Your task to perform on an android device: make emails show in primary in the gmail app Image 0: 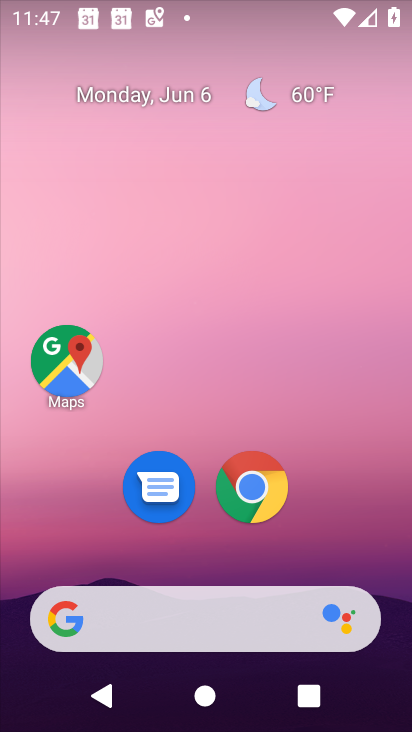
Step 0: drag from (381, 575) to (245, 160)
Your task to perform on an android device: make emails show in primary in the gmail app Image 1: 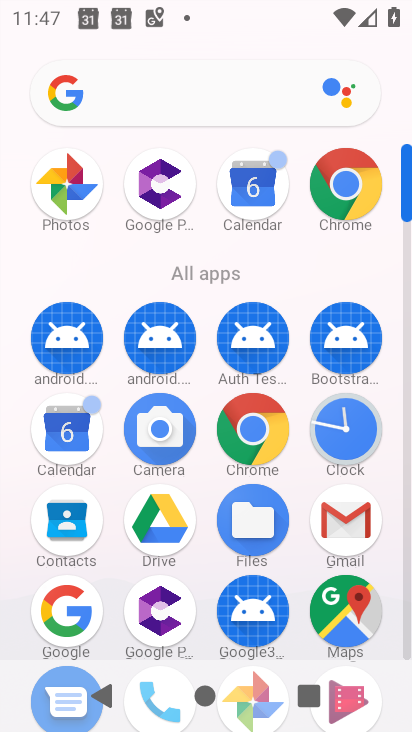
Step 1: click (367, 522)
Your task to perform on an android device: make emails show in primary in the gmail app Image 2: 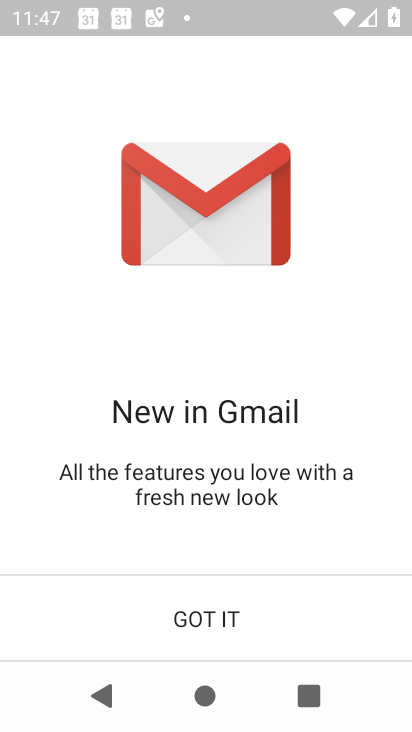
Step 2: click (233, 608)
Your task to perform on an android device: make emails show in primary in the gmail app Image 3: 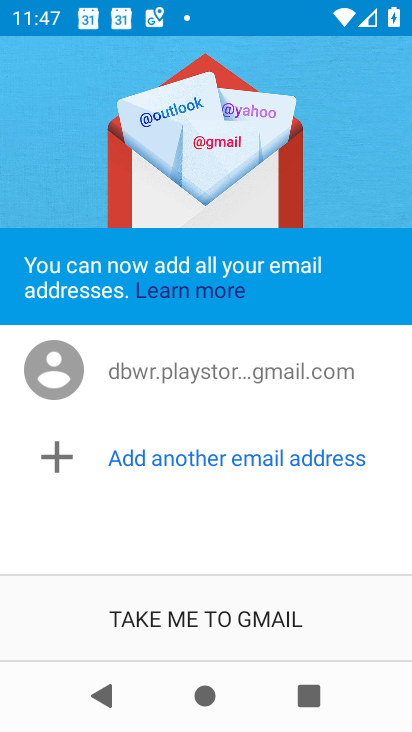
Step 3: click (241, 621)
Your task to perform on an android device: make emails show in primary in the gmail app Image 4: 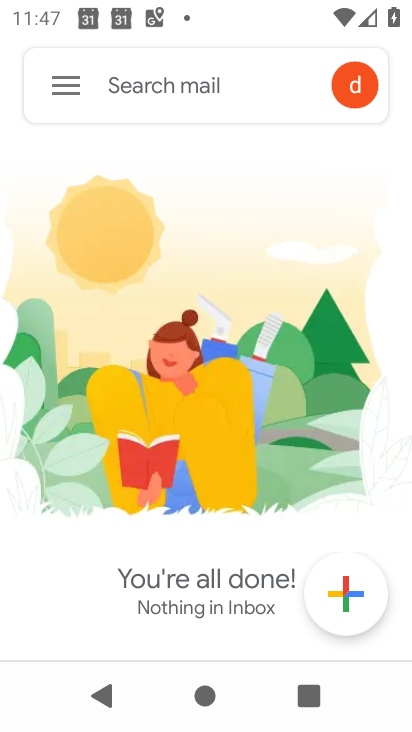
Step 4: click (73, 90)
Your task to perform on an android device: make emails show in primary in the gmail app Image 5: 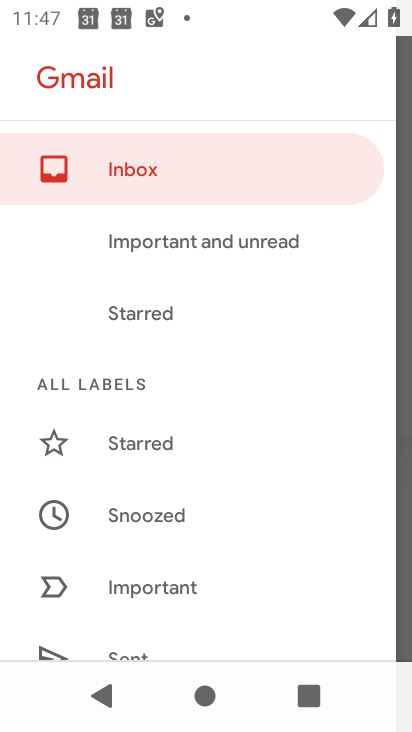
Step 5: drag from (248, 621) to (216, 258)
Your task to perform on an android device: make emails show in primary in the gmail app Image 6: 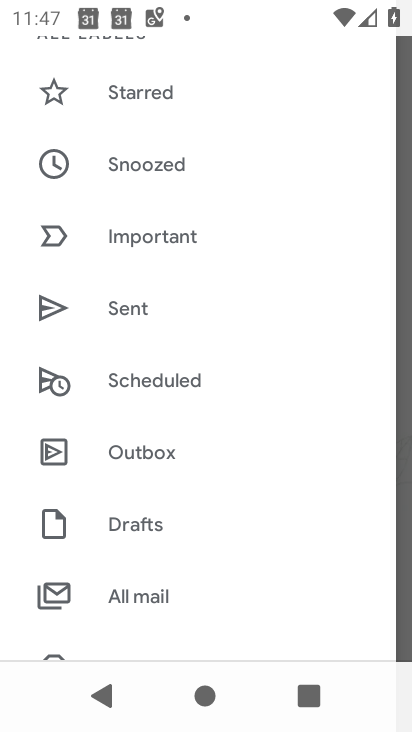
Step 6: drag from (254, 530) to (236, 103)
Your task to perform on an android device: make emails show in primary in the gmail app Image 7: 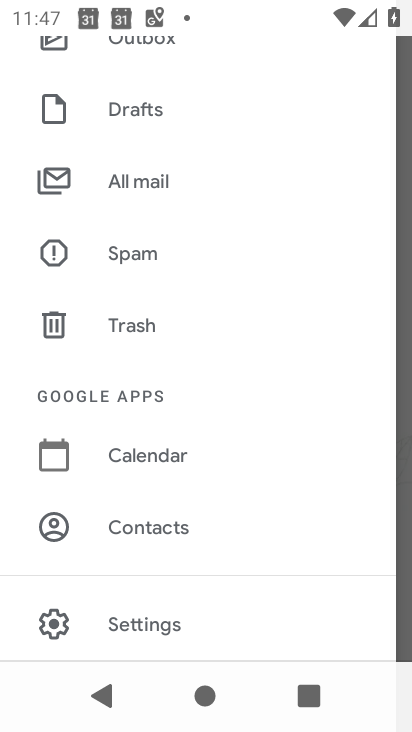
Step 7: click (188, 621)
Your task to perform on an android device: make emails show in primary in the gmail app Image 8: 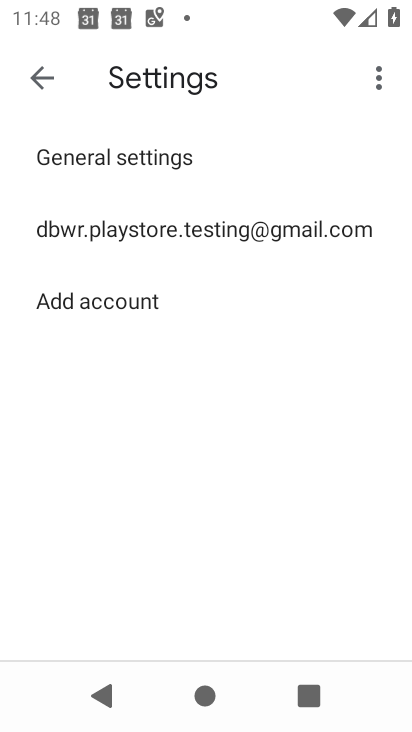
Step 8: click (256, 238)
Your task to perform on an android device: make emails show in primary in the gmail app Image 9: 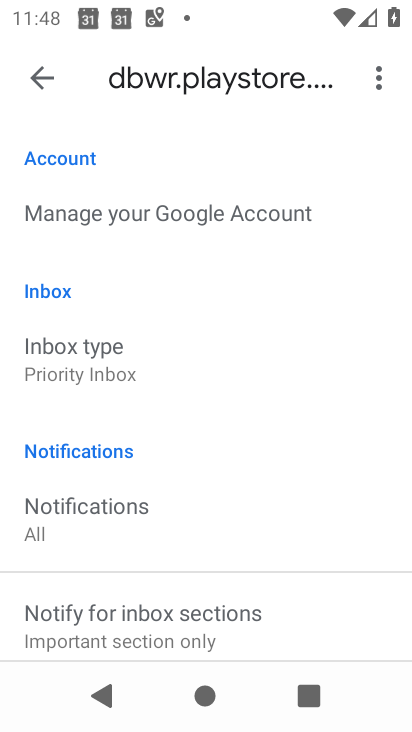
Step 9: click (193, 359)
Your task to perform on an android device: make emails show in primary in the gmail app Image 10: 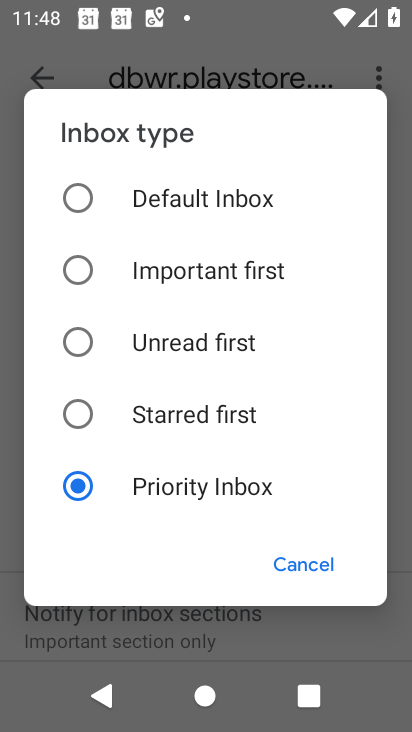
Step 10: click (203, 204)
Your task to perform on an android device: make emails show in primary in the gmail app Image 11: 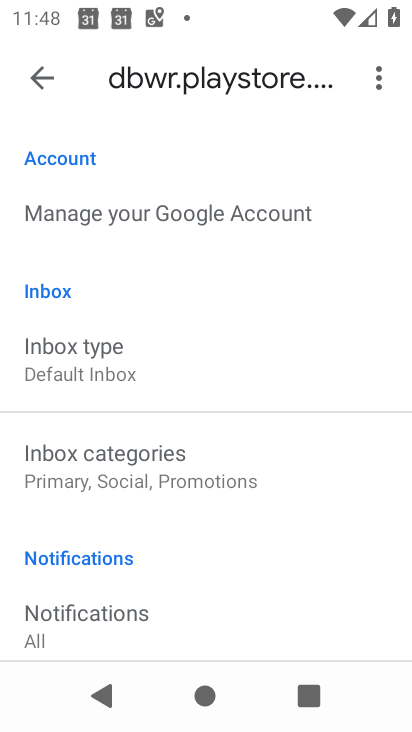
Step 11: task complete